Your task to perform on an android device: Search for the best rated headphones on amazon.com Image 0: 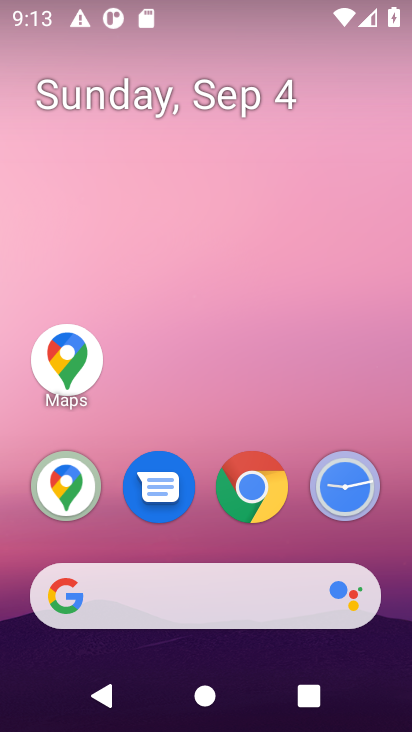
Step 0: click (269, 508)
Your task to perform on an android device: Search for the best rated headphones on amazon.com Image 1: 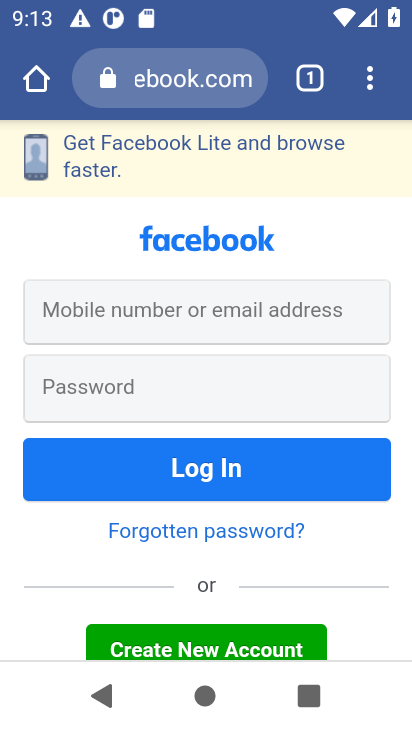
Step 1: task complete